Your task to perform on an android device: Open network settings Image 0: 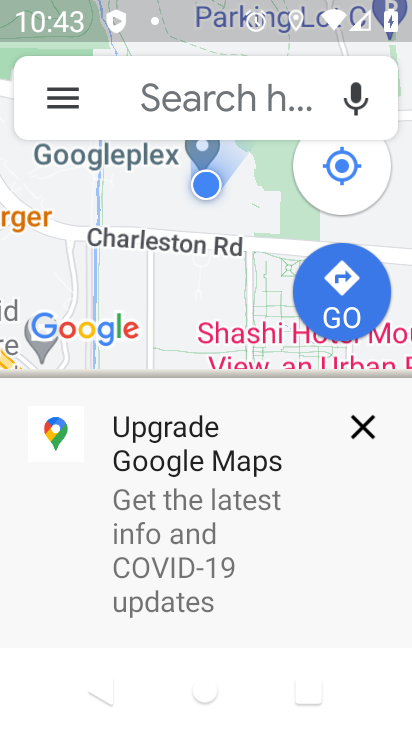
Step 0: press home button
Your task to perform on an android device: Open network settings Image 1: 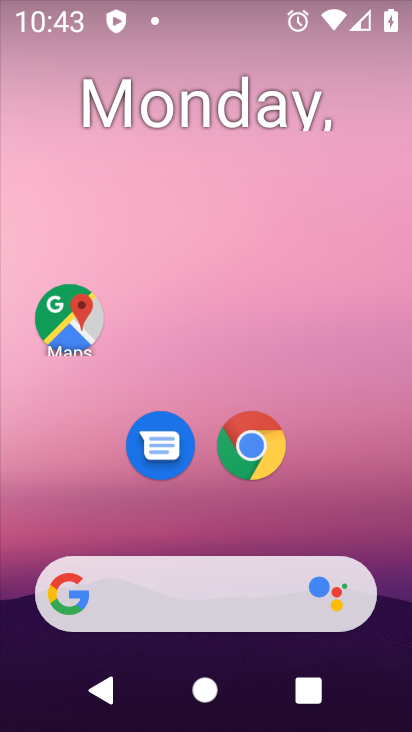
Step 1: drag from (358, 418) to (99, 83)
Your task to perform on an android device: Open network settings Image 2: 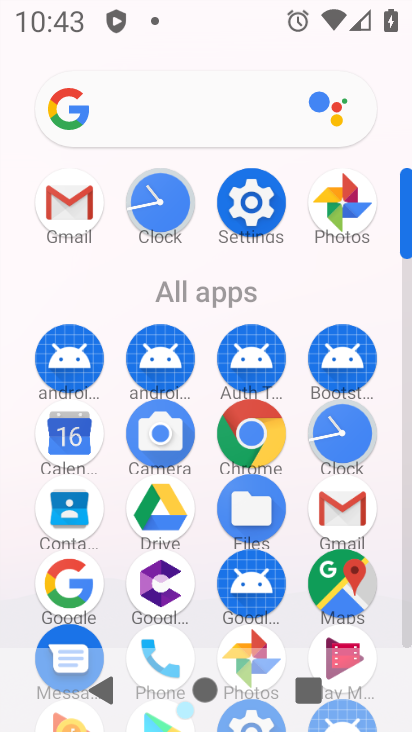
Step 2: click (245, 214)
Your task to perform on an android device: Open network settings Image 3: 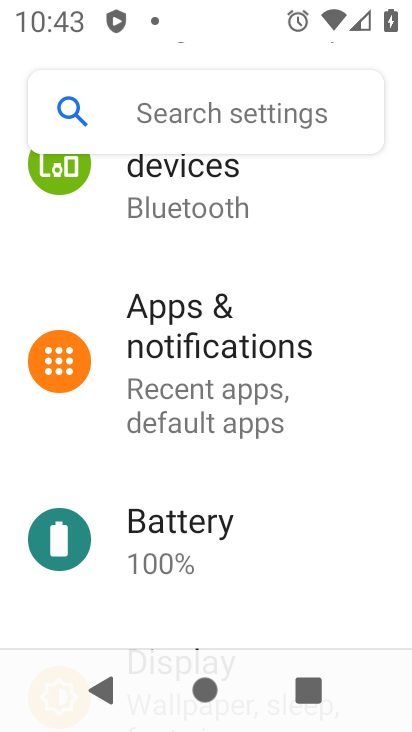
Step 3: click (205, 607)
Your task to perform on an android device: Open network settings Image 4: 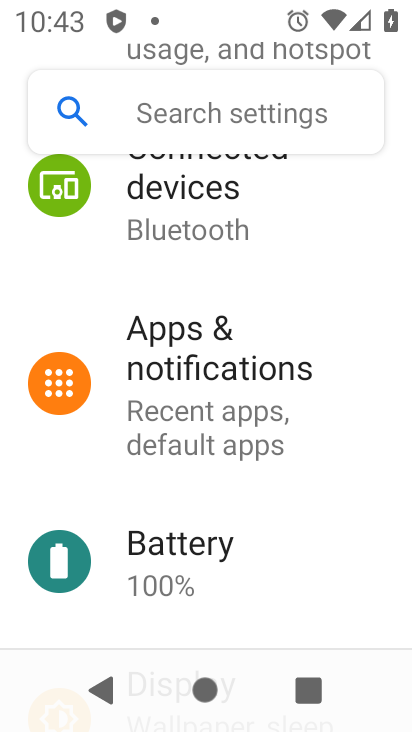
Step 4: drag from (209, 228) to (203, 592)
Your task to perform on an android device: Open network settings Image 5: 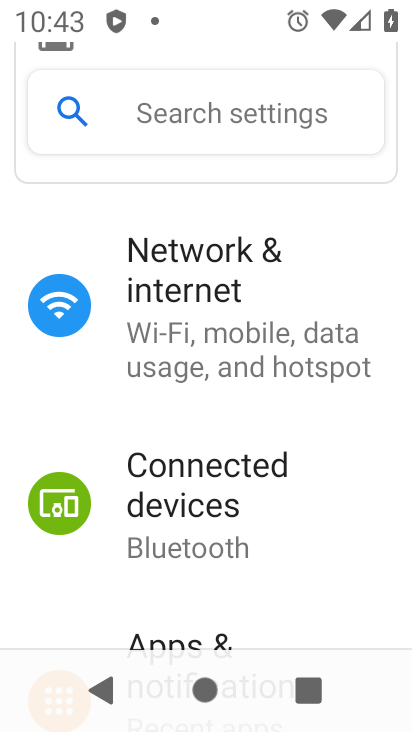
Step 5: click (172, 345)
Your task to perform on an android device: Open network settings Image 6: 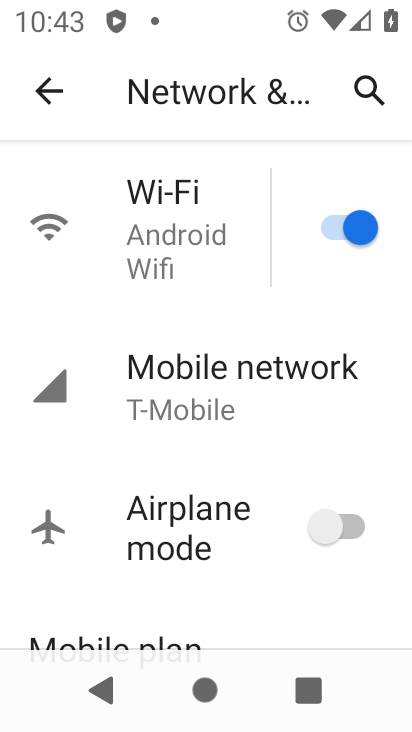
Step 6: click (180, 399)
Your task to perform on an android device: Open network settings Image 7: 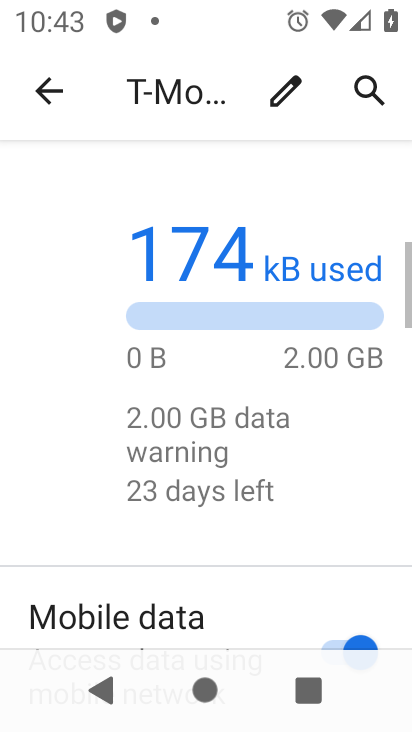
Step 7: task complete